Your task to perform on an android device: delete the emails in spam in the gmail app Image 0: 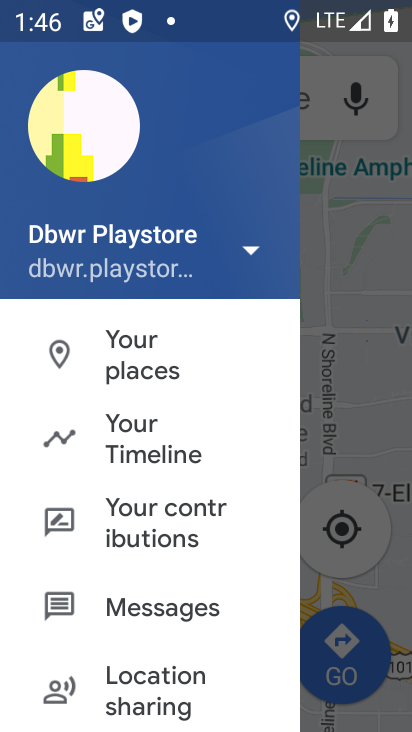
Step 0: press home button
Your task to perform on an android device: delete the emails in spam in the gmail app Image 1: 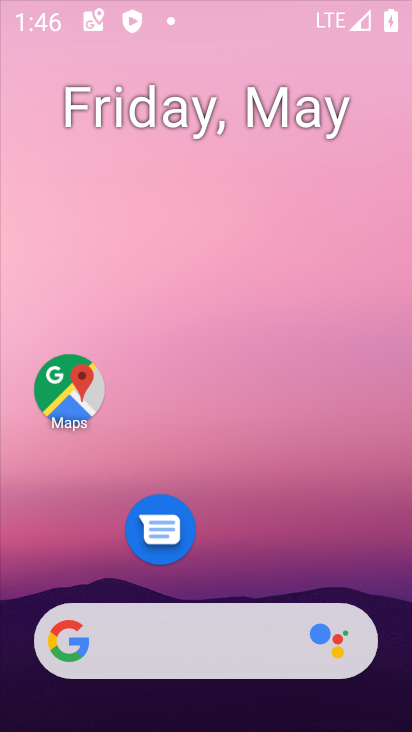
Step 1: drag from (187, 590) to (285, 273)
Your task to perform on an android device: delete the emails in spam in the gmail app Image 2: 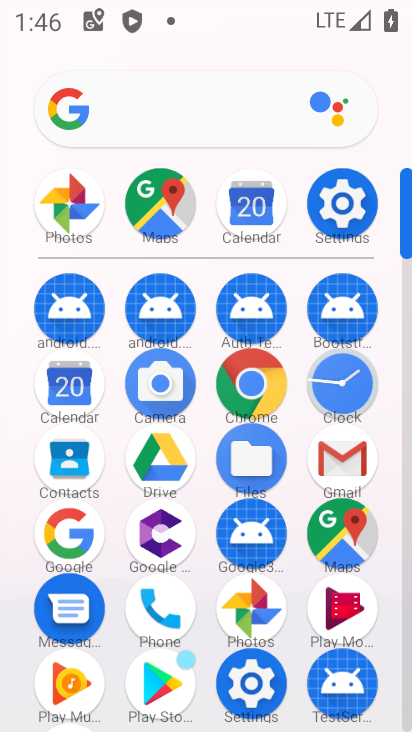
Step 2: click (330, 458)
Your task to perform on an android device: delete the emails in spam in the gmail app Image 3: 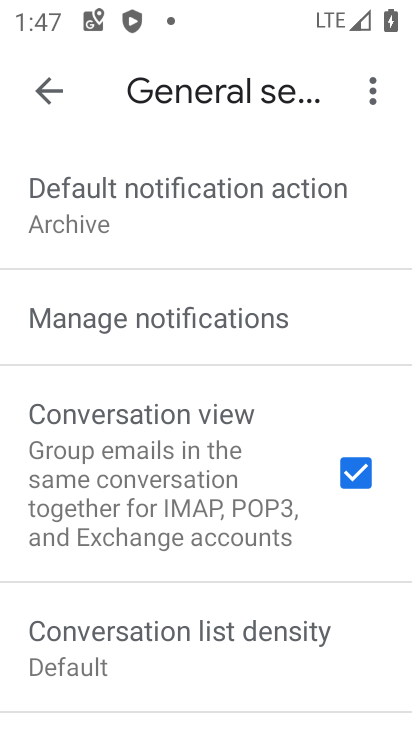
Step 3: drag from (220, 625) to (166, 690)
Your task to perform on an android device: delete the emails in spam in the gmail app Image 4: 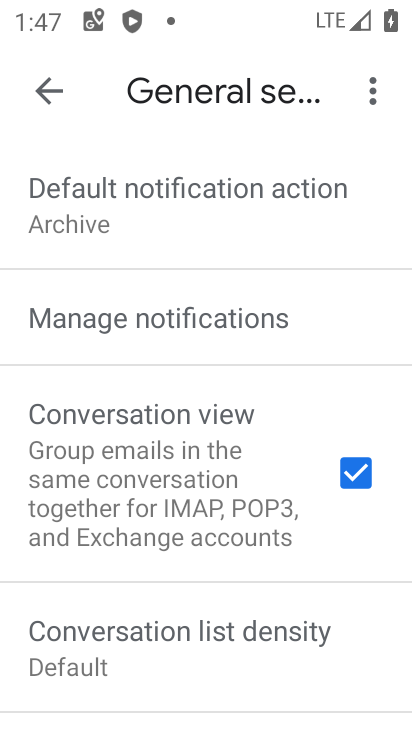
Step 4: click (43, 69)
Your task to perform on an android device: delete the emails in spam in the gmail app Image 5: 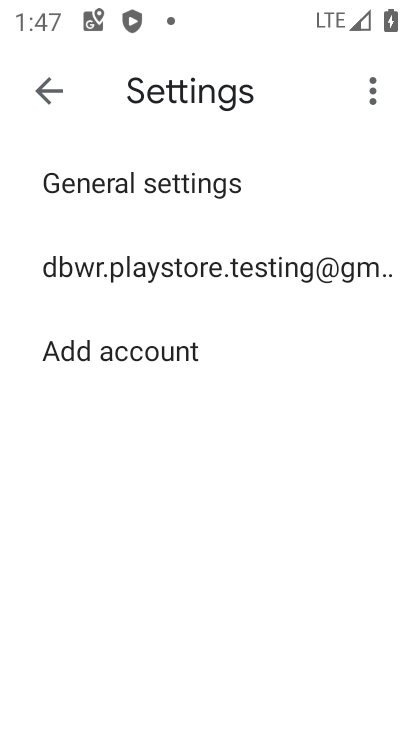
Step 5: click (42, 70)
Your task to perform on an android device: delete the emails in spam in the gmail app Image 6: 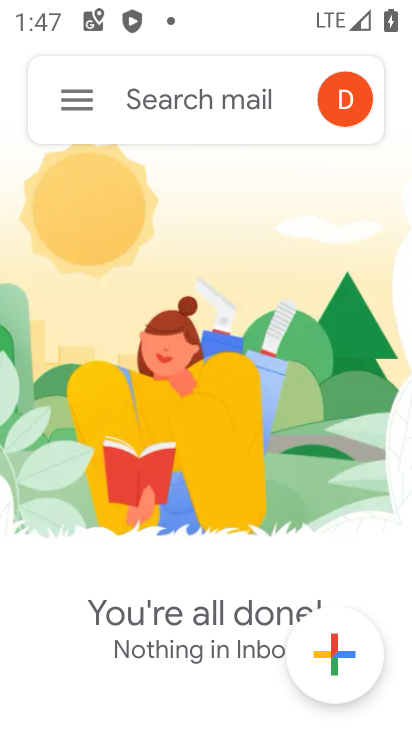
Step 6: click (72, 94)
Your task to perform on an android device: delete the emails in spam in the gmail app Image 7: 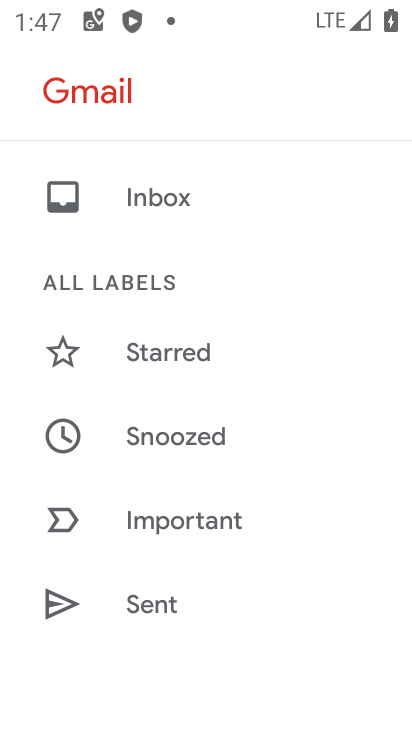
Step 7: drag from (202, 455) to (322, 11)
Your task to perform on an android device: delete the emails in spam in the gmail app Image 8: 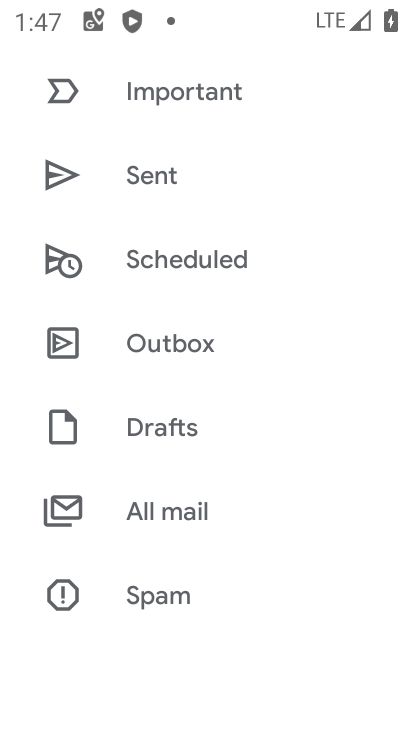
Step 8: click (190, 520)
Your task to perform on an android device: delete the emails in spam in the gmail app Image 9: 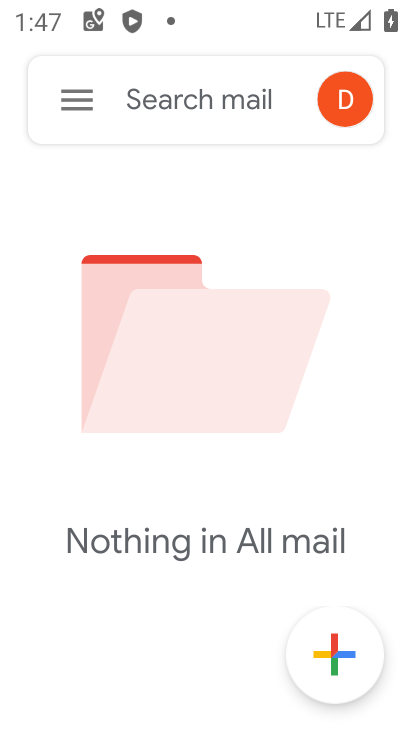
Step 9: click (77, 101)
Your task to perform on an android device: delete the emails in spam in the gmail app Image 10: 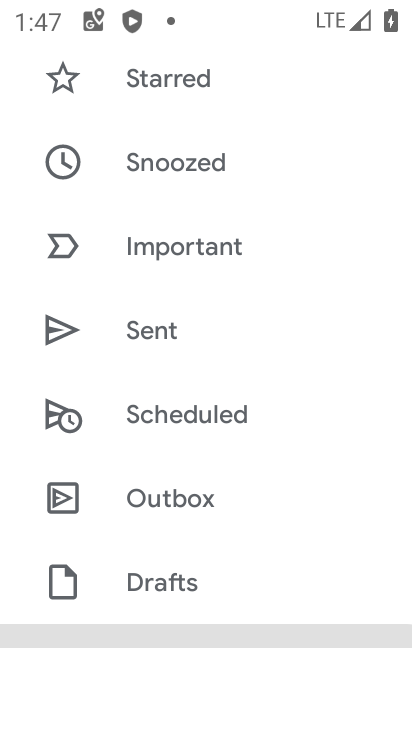
Step 10: drag from (199, 534) to (297, 72)
Your task to perform on an android device: delete the emails in spam in the gmail app Image 11: 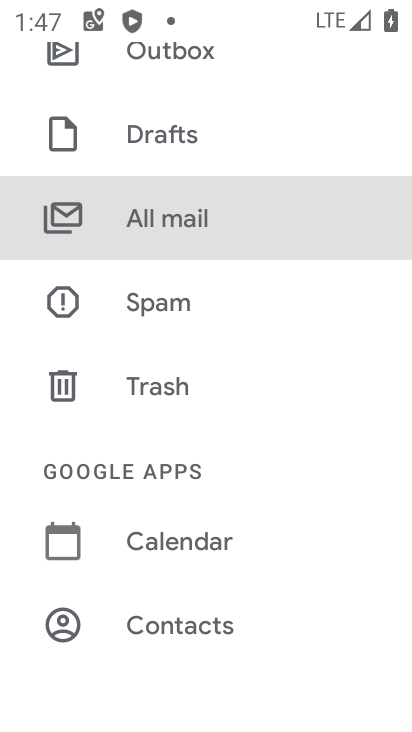
Step 11: click (192, 308)
Your task to perform on an android device: delete the emails in spam in the gmail app Image 12: 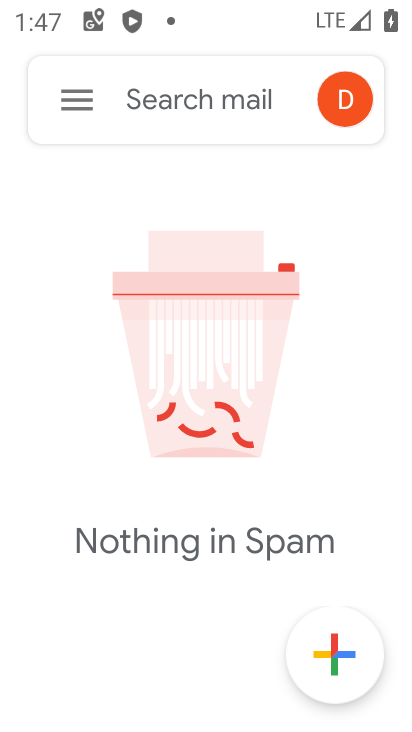
Step 12: task complete